Your task to perform on an android device: open app "Cash App" (install if not already installed), go to login, and select forgot password Image 0: 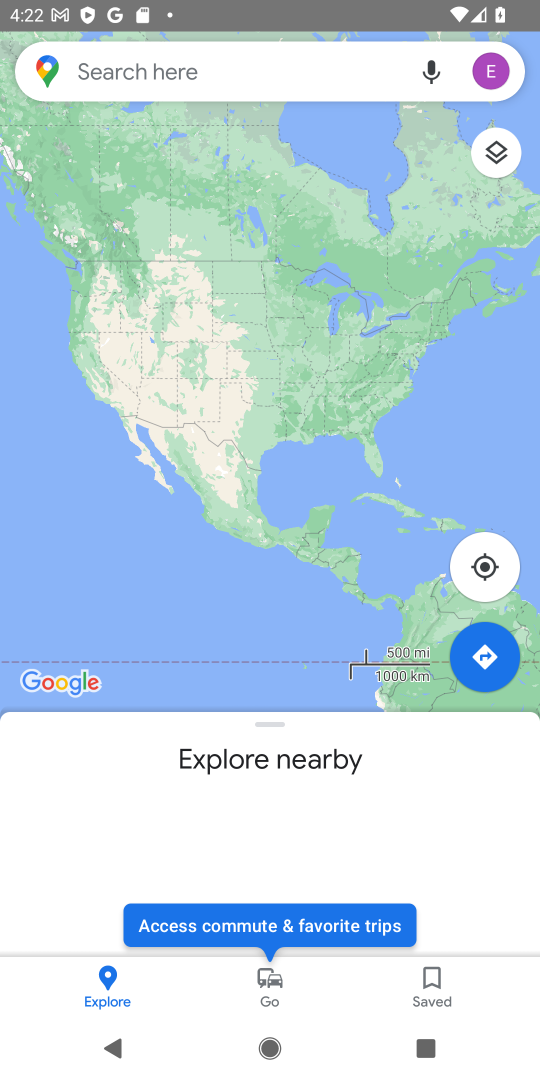
Step 0: press home button
Your task to perform on an android device: open app "Cash App" (install if not already installed), go to login, and select forgot password Image 1: 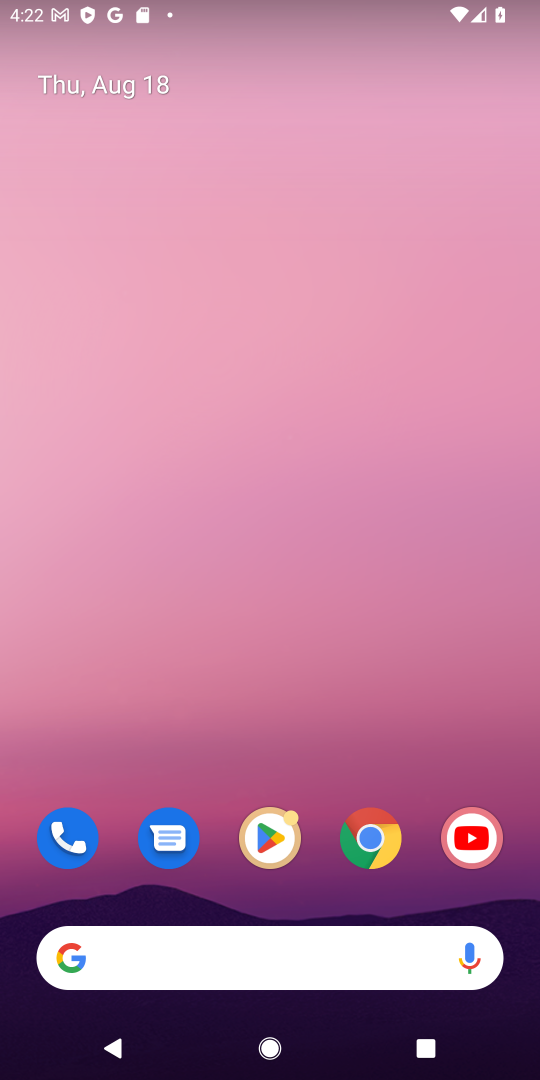
Step 1: drag from (199, 984) to (359, 131)
Your task to perform on an android device: open app "Cash App" (install if not already installed), go to login, and select forgot password Image 2: 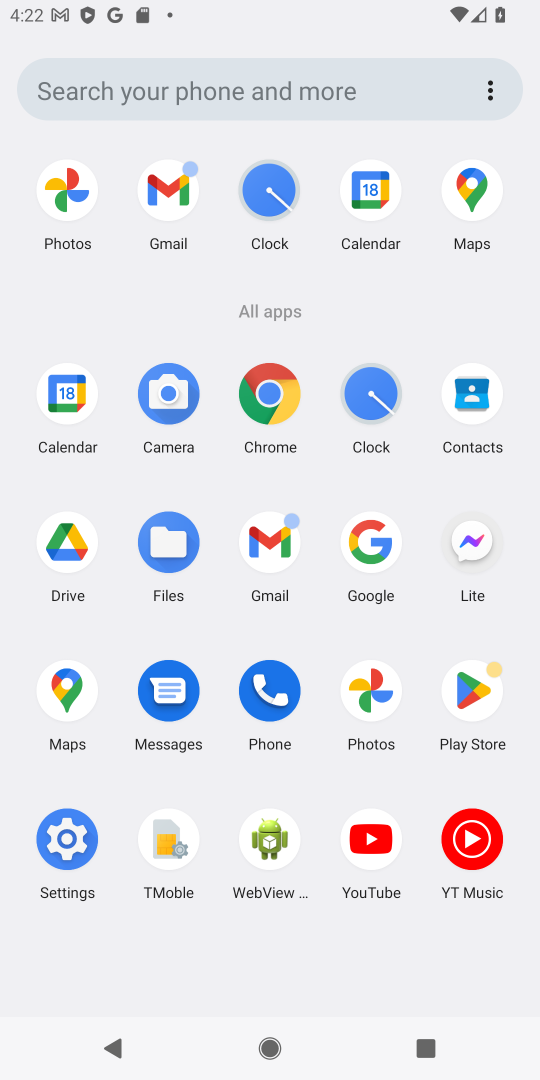
Step 2: click (475, 689)
Your task to perform on an android device: open app "Cash App" (install if not already installed), go to login, and select forgot password Image 3: 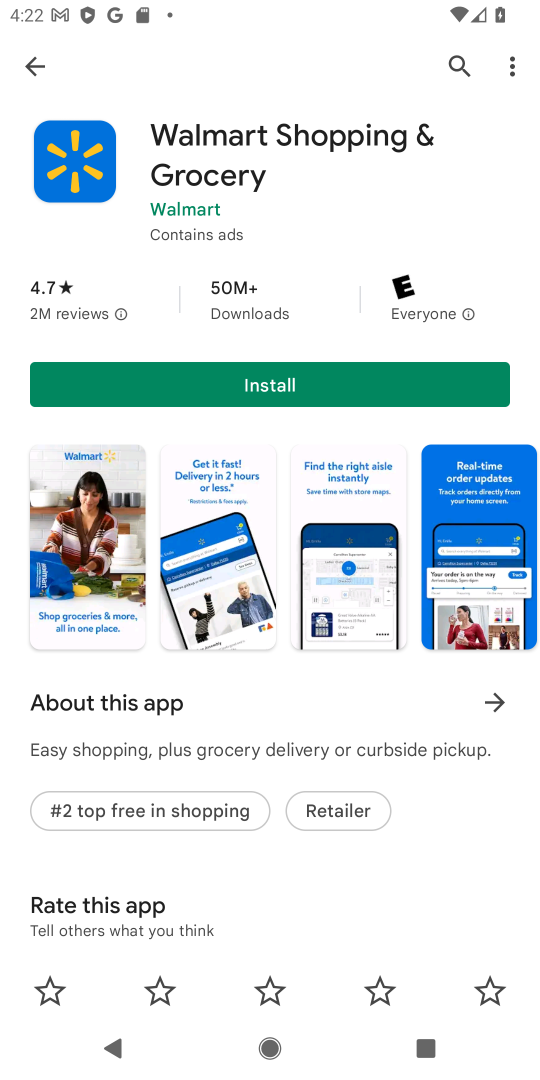
Step 3: press back button
Your task to perform on an android device: open app "Cash App" (install if not already installed), go to login, and select forgot password Image 4: 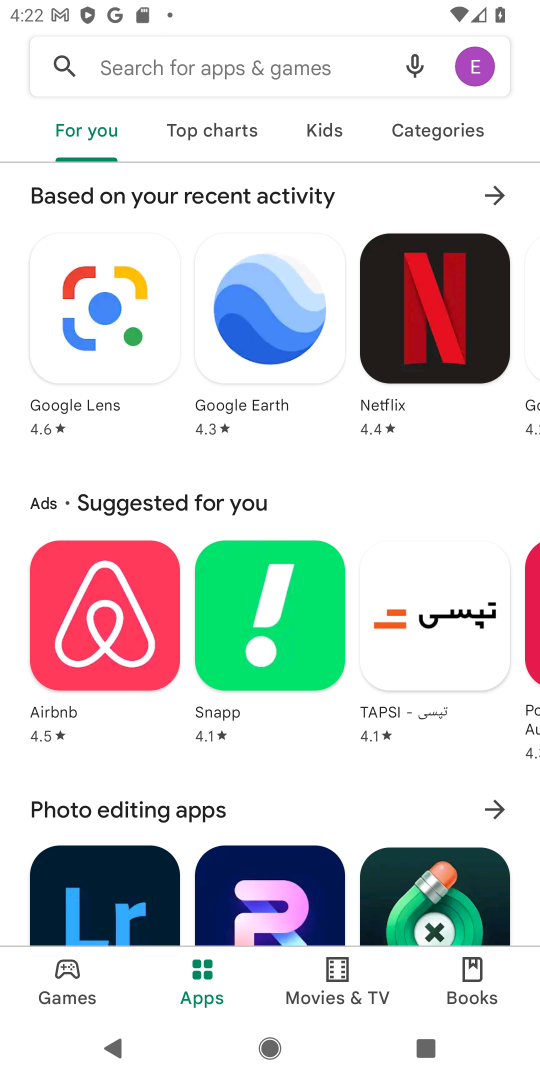
Step 4: click (256, 57)
Your task to perform on an android device: open app "Cash App" (install if not already installed), go to login, and select forgot password Image 5: 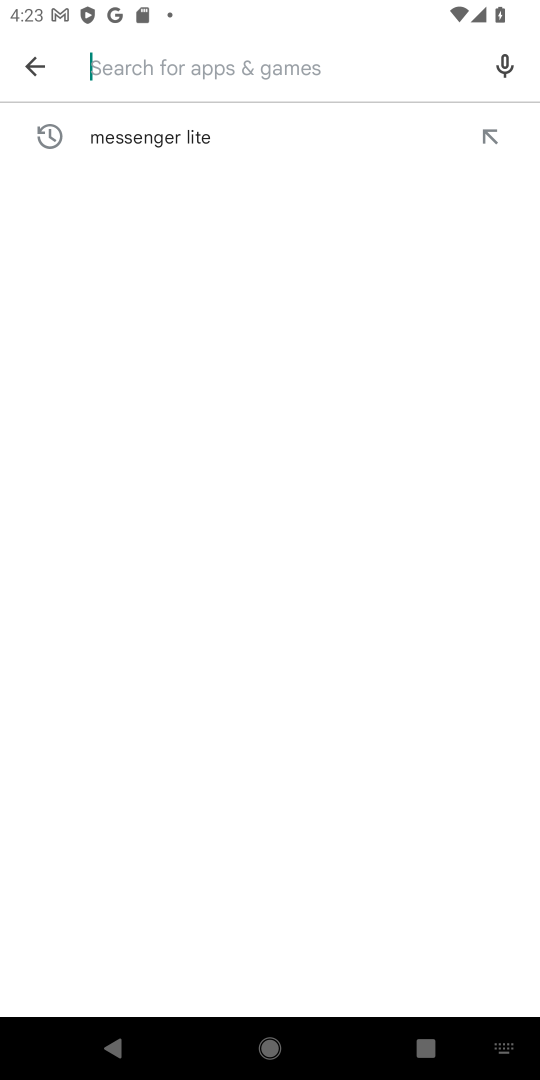
Step 5: type "Cash App"
Your task to perform on an android device: open app "Cash App" (install if not already installed), go to login, and select forgot password Image 6: 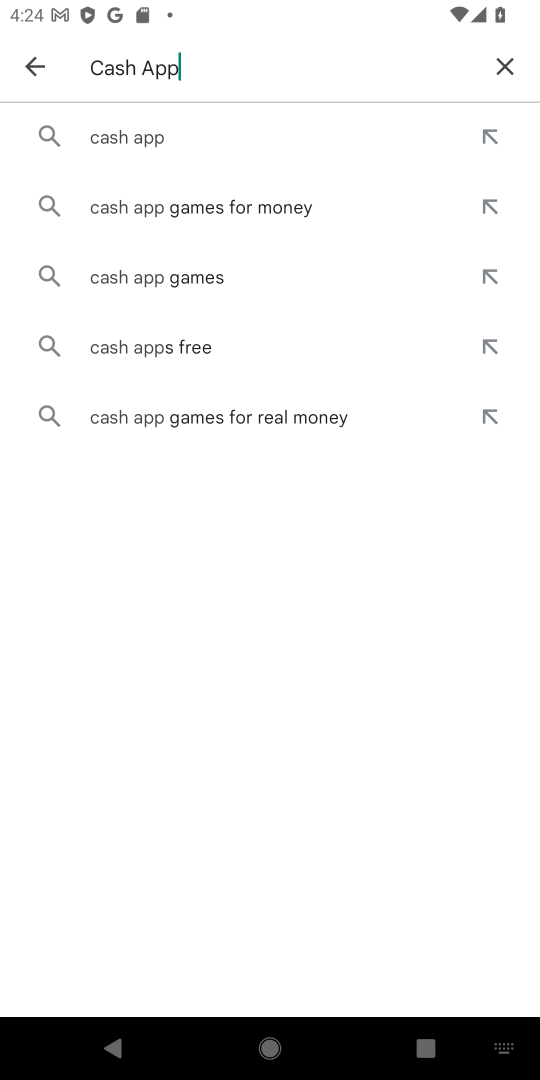
Step 6: click (139, 134)
Your task to perform on an android device: open app "Cash App" (install if not already installed), go to login, and select forgot password Image 7: 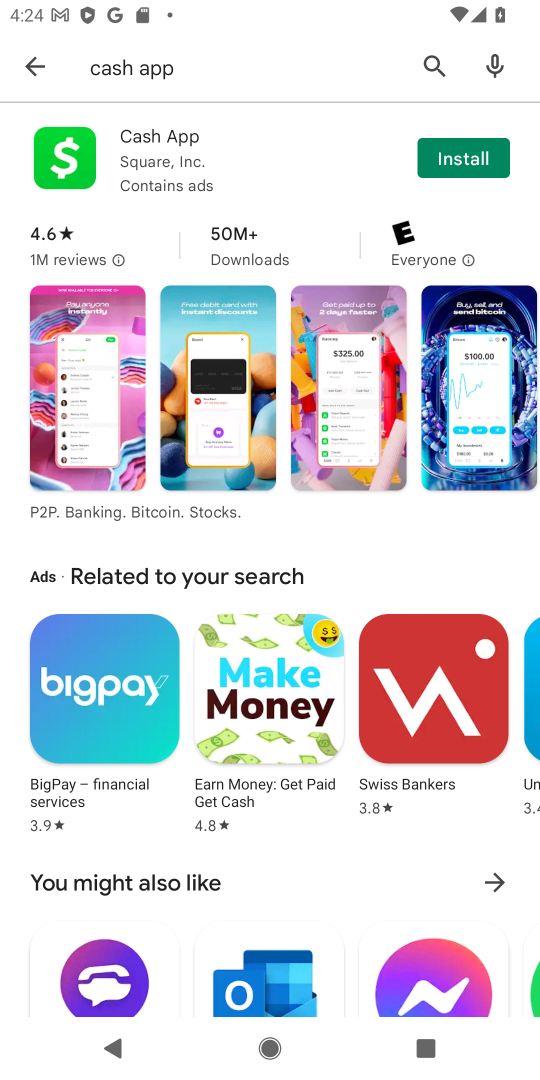
Step 7: click (482, 163)
Your task to perform on an android device: open app "Cash App" (install if not already installed), go to login, and select forgot password Image 8: 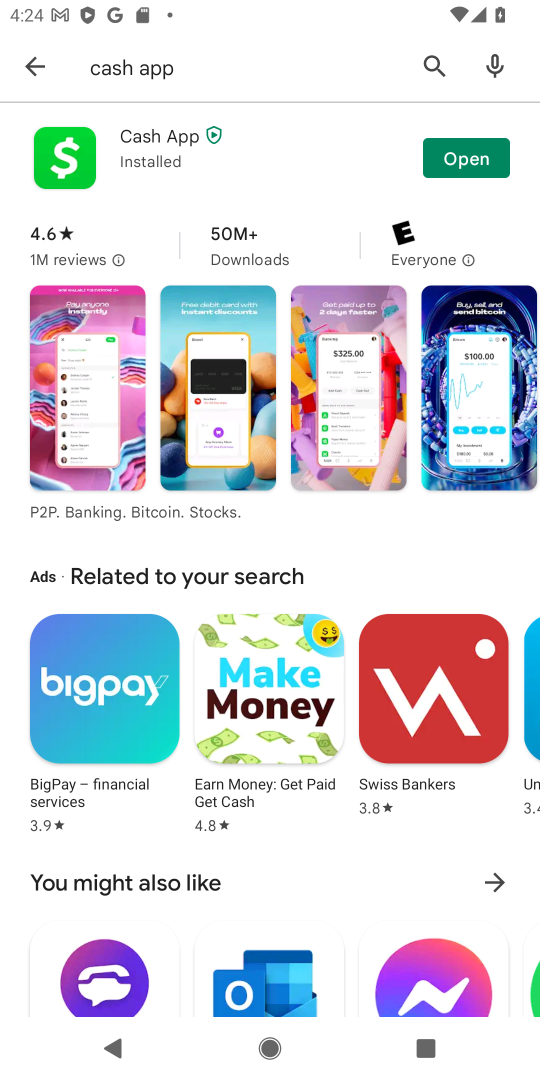
Step 8: click (473, 165)
Your task to perform on an android device: open app "Cash App" (install if not already installed), go to login, and select forgot password Image 9: 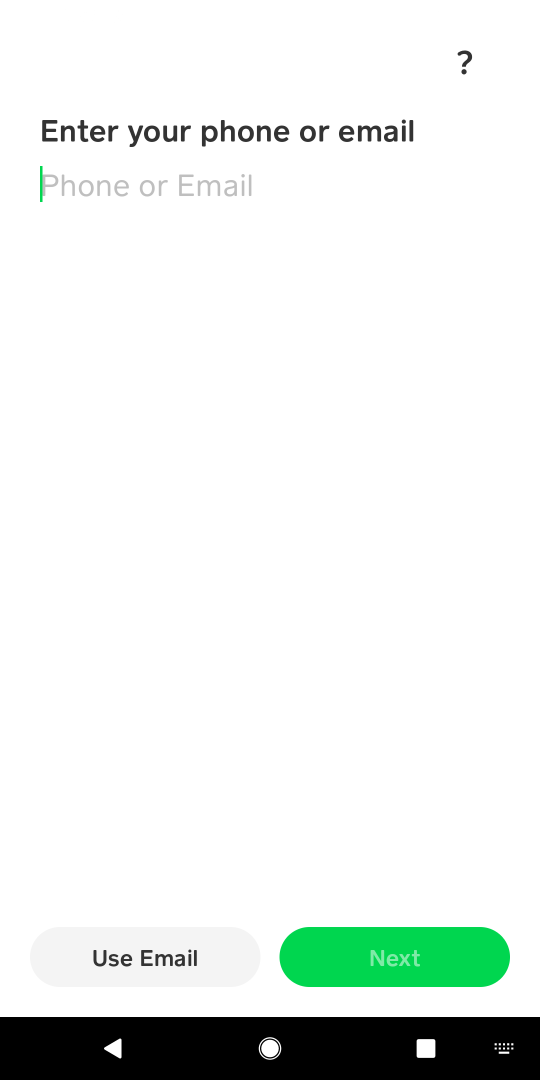
Step 9: click (152, 952)
Your task to perform on an android device: open app "Cash App" (install if not already installed), go to login, and select forgot password Image 10: 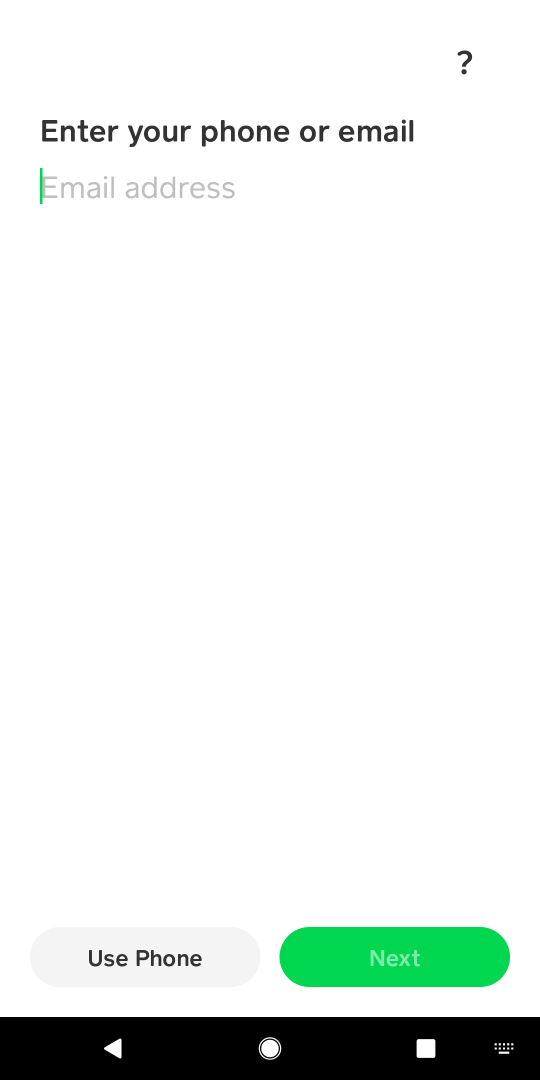
Step 10: click (181, 216)
Your task to perform on an android device: open app "Cash App" (install if not already installed), go to login, and select forgot password Image 11: 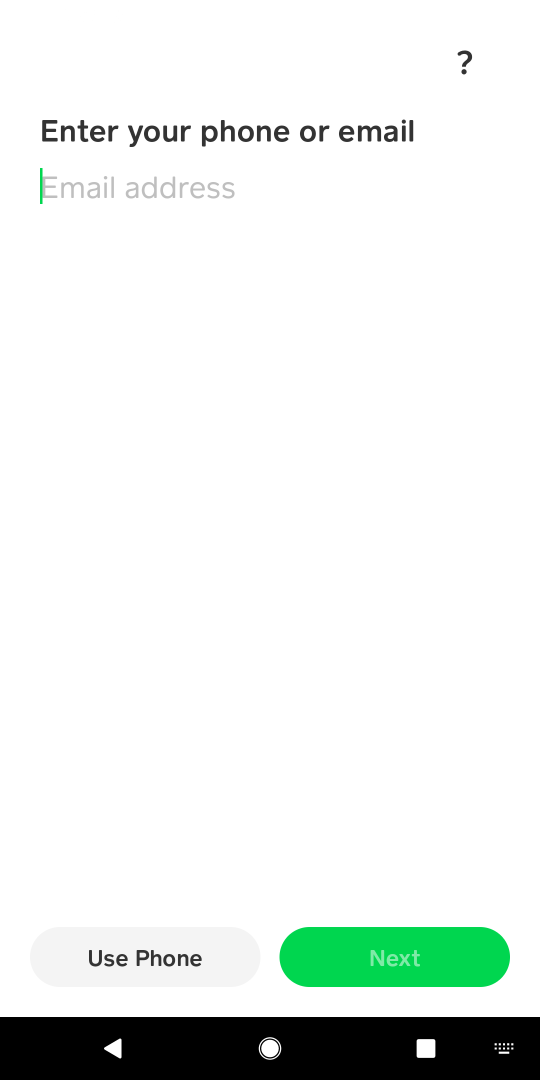
Step 11: click (478, 49)
Your task to perform on an android device: open app "Cash App" (install if not already installed), go to login, and select forgot password Image 12: 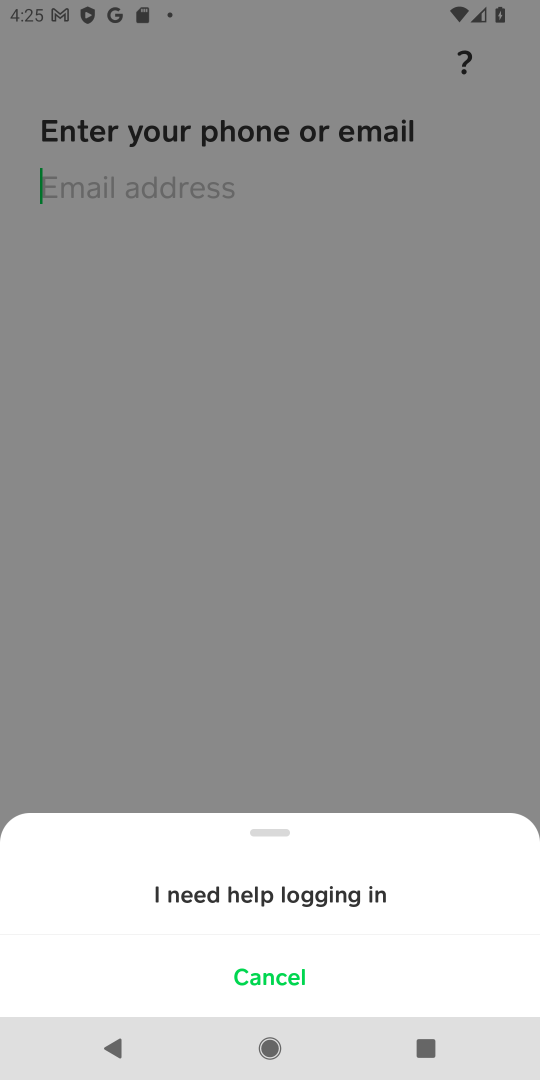
Step 12: click (284, 894)
Your task to perform on an android device: open app "Cash App" (install if not already installed), go to login, and select forgot password Image 13: 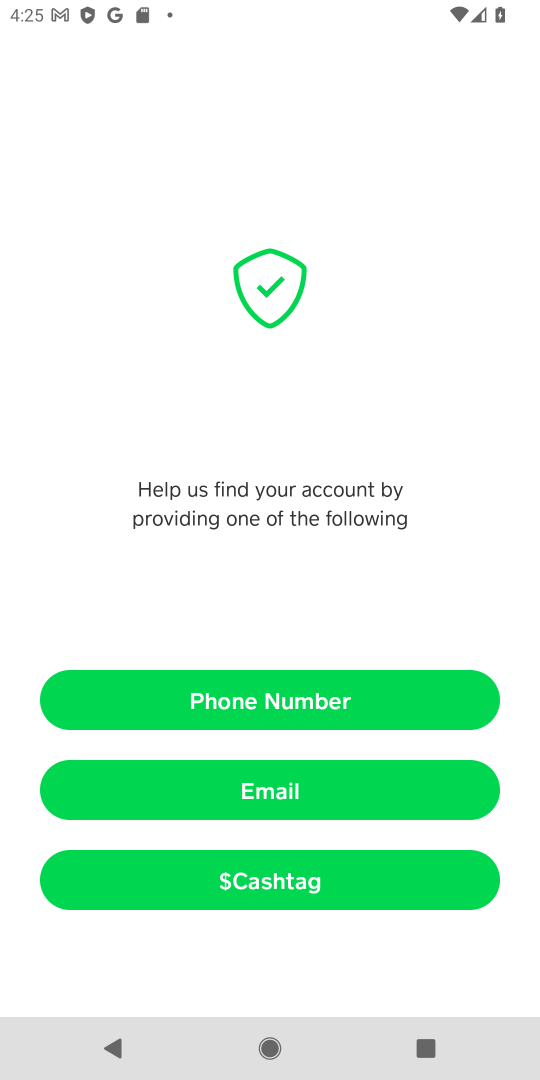
Step 13: click (299, 795)
Your task to perform on an android device: open app "Cash App" (install if not already installed), go to login, and select forgot password Image 14: 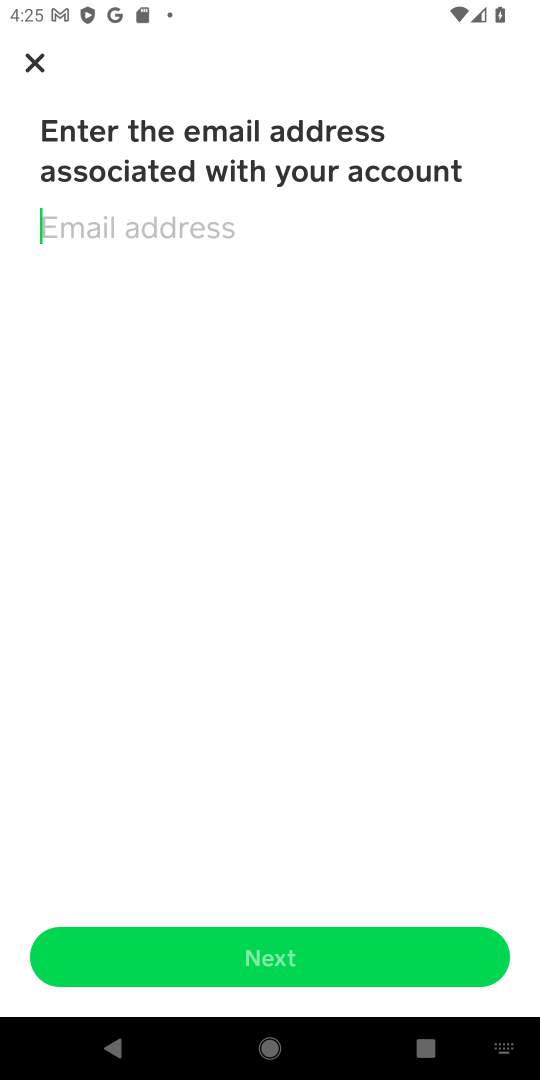
Step 14: click (274, 943)
Your task to perform on an android device: open app "Cash App" (install if not already installed), go to login, and select forgot password Image 15: 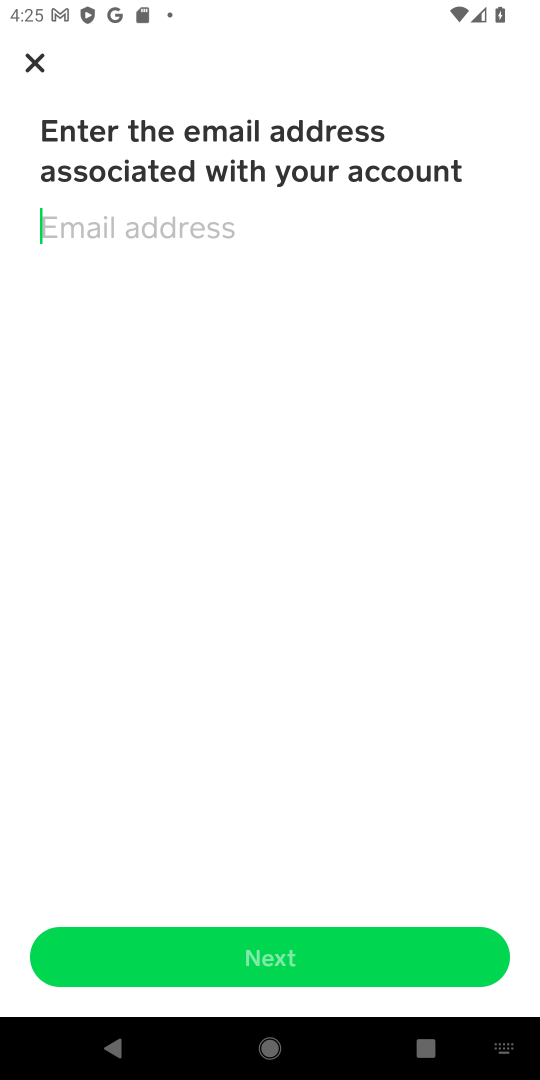
Step 15: click (234, 248)
Your task to perform on an android device: open app "Cash App" (install if not already installed), go to login, and select forgot password Image 16: 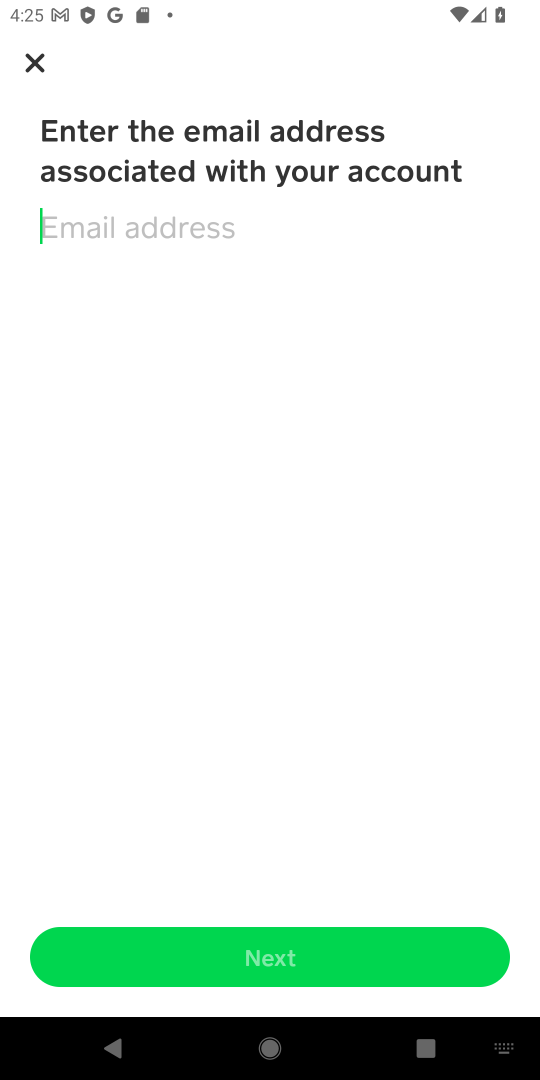
Step 16: click (148, 251)
Your task to perform on an android device: open app "Cash App" (install if not already installed), go to login, and select forgot password Image 17: 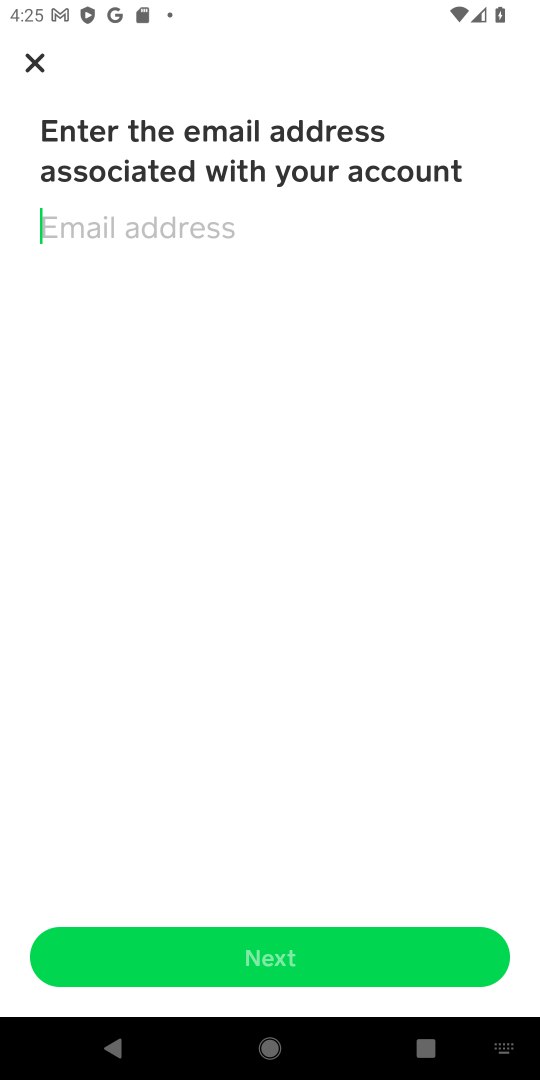
Step 17: click (183, 968)
Your task to perform on an android device: open app "Cash App" (install if not already installed), go to login, and select forgot password Image 18: 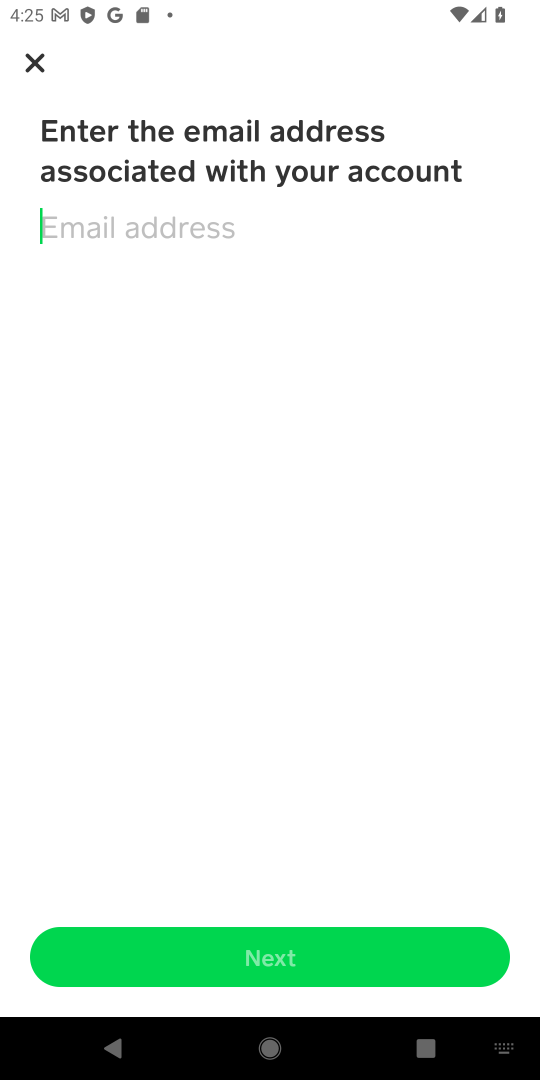
Step 18: click (35, 67)
Your task to perform on an android device: open app "Cash App" (install if not already installed), go to login, and select forgot password Image 19: 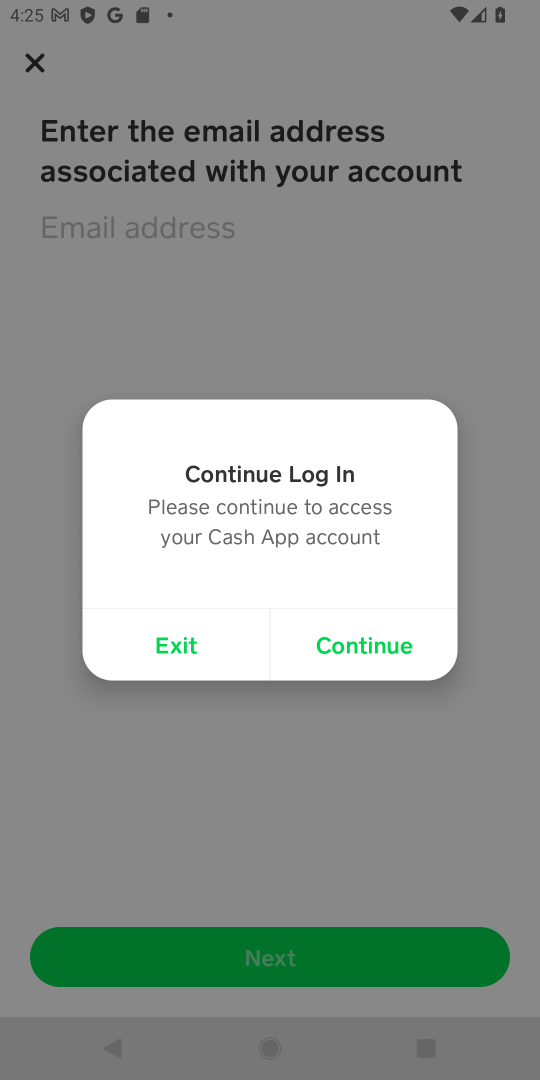
Step 19: click (177, 654)
Your task to perform on an android device: open app "Cash App" (install if not already installed), go to login, and select forgot password Image 20: 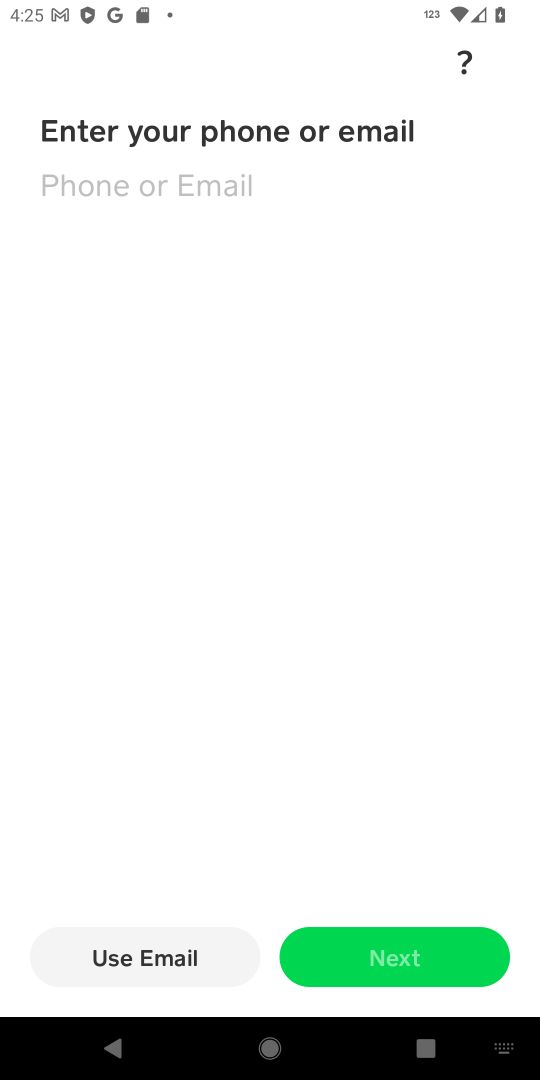
Step 20: task complete